Your task to perform on an android device: Search for "beats solo 3" on newegg.com, select the first entry, and add it to the cart. Image 0: 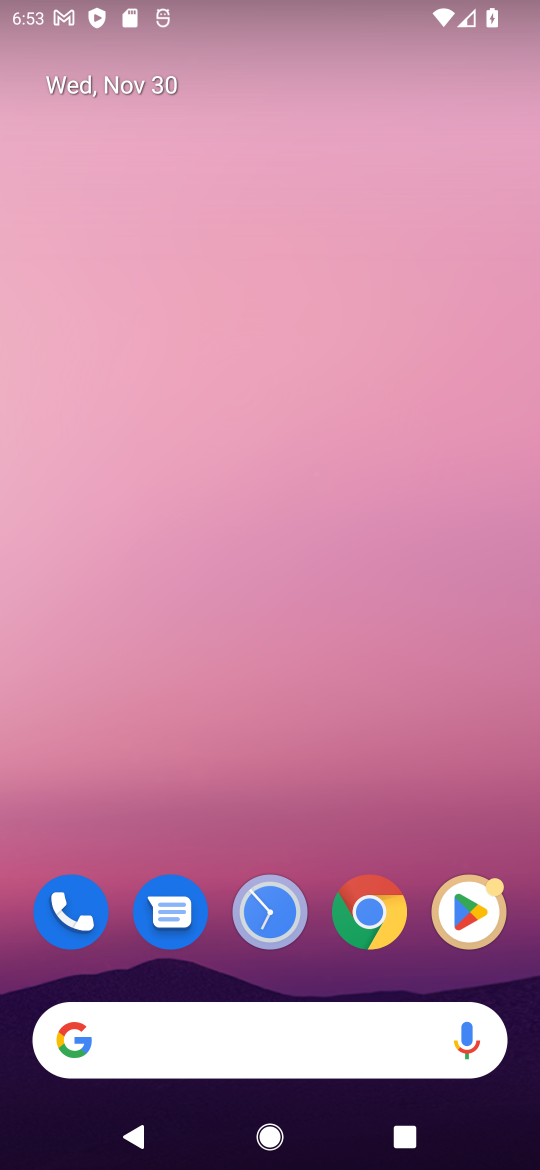
Step 0: click (281, 1021)
Your task to perform on an android device: Search for "beats solo 3" on newegg.com, select the first entry, and add it to the cart. Image 1: 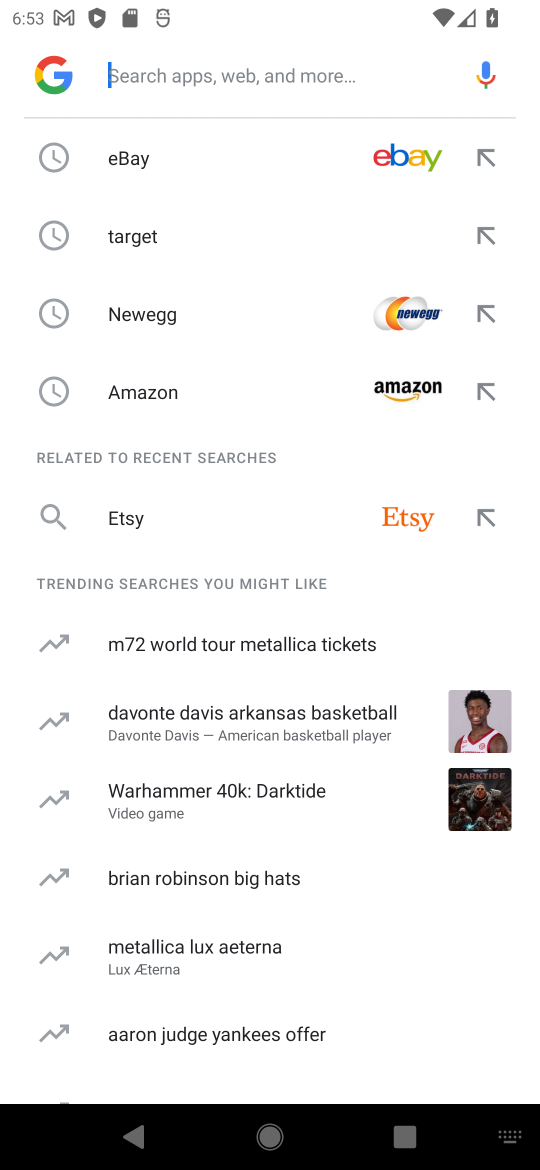
Step 1: click (212, 329)
Your task to perform on an android device: Search for "beats solo 3" on newegg.com, select the first entry, and add it to the cart. Image 2: 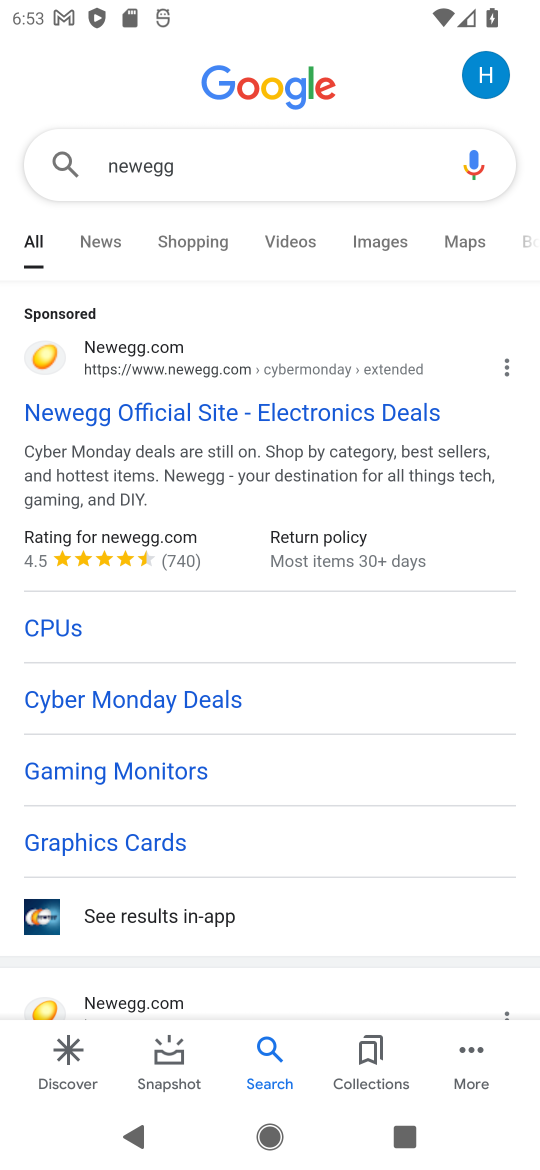
Step 2: click (135, 351)
Your task to perform on an android device: Search for "beats solo 3" on newegg.com, select the first entry, and add it to the cart. Image 3: 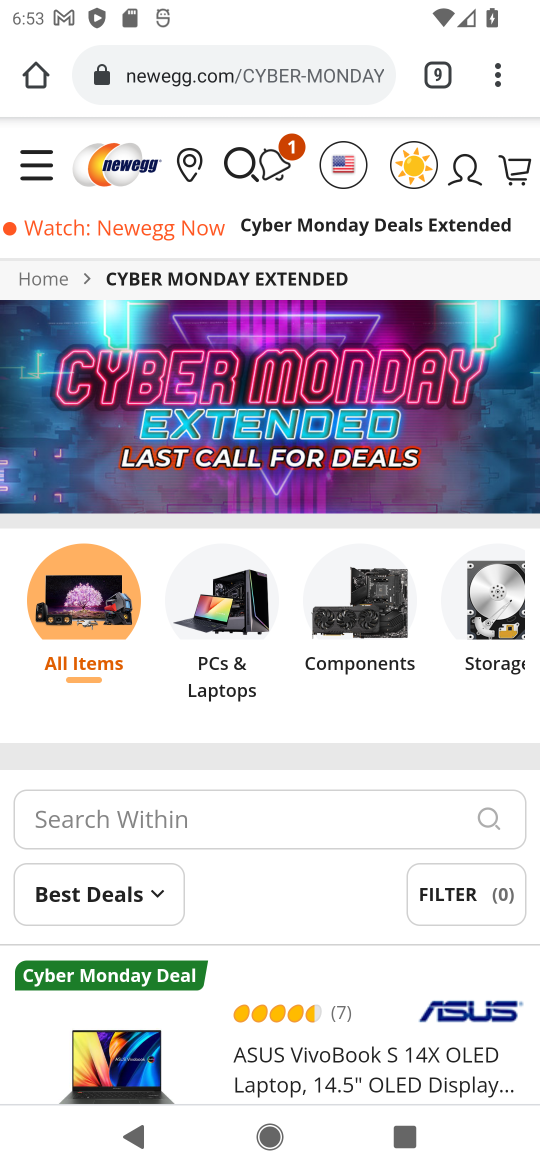
Step 3: click (236, 170)
Your task to perform on an android device: Search for "beats solo 3" on newegg.com, select the first entry, and add it to the cart. Image 4: 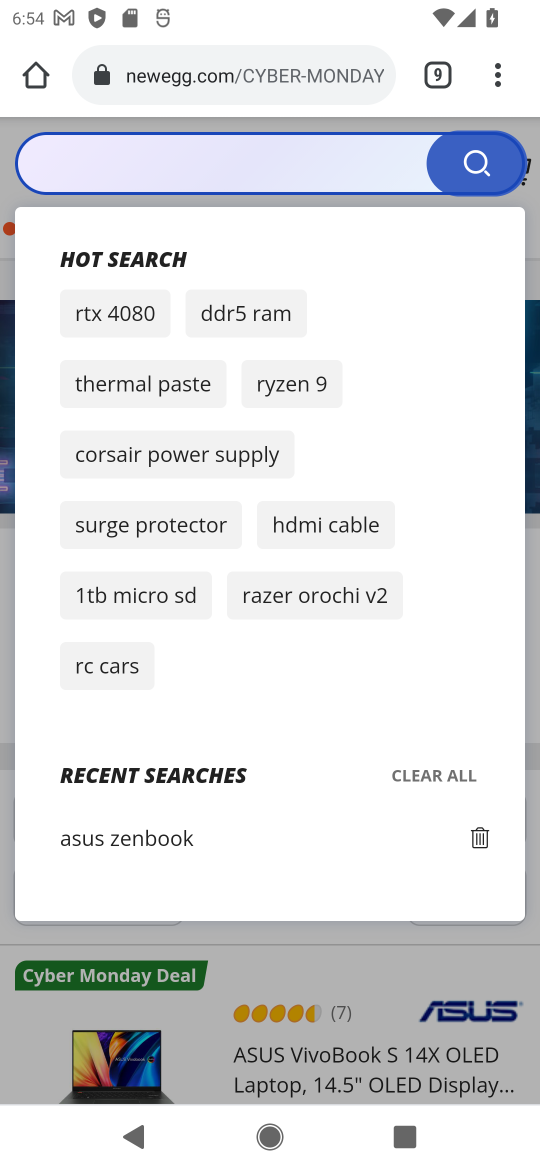
Step 4: type "beats solo 3"
Your task to perform on an android device: Search for "beats solo 3" on newegg.com, select the first entry, and add it to the cart. Image 5: 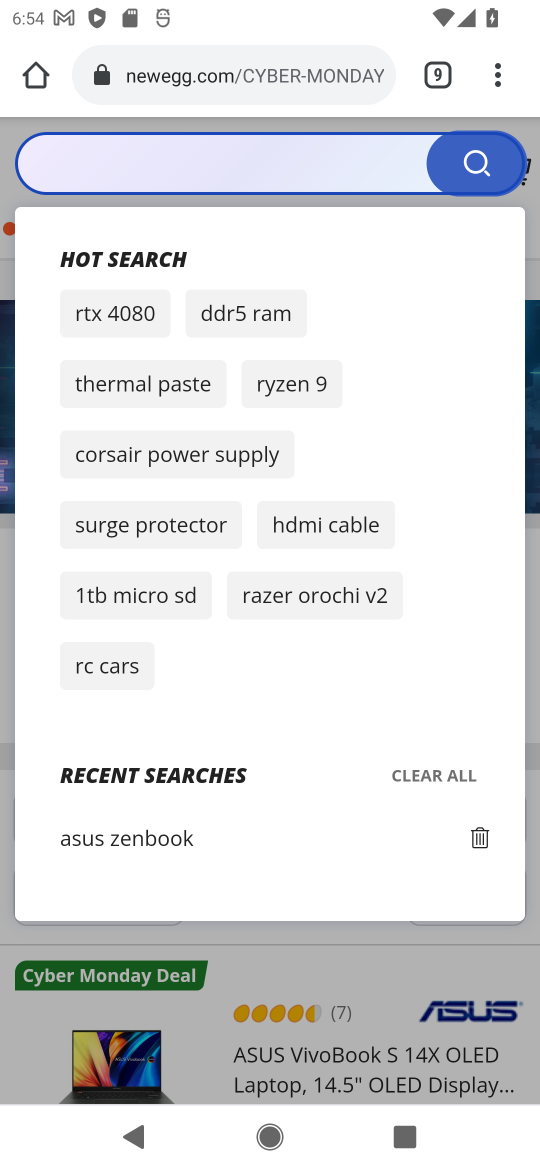
Step 5: type "beats solo 3"
Your task to perform on an android device: Search for "beats solo 3" on newegg.com, select the first entry, and add it to the cart. Image 6: 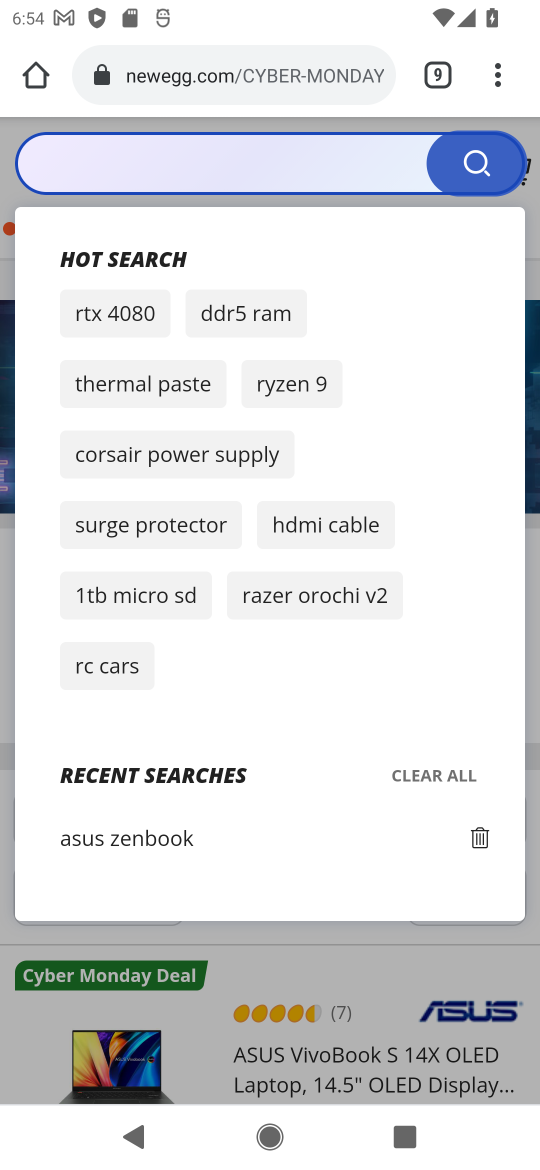
Step 6: click (330, 157)
Your task to perform on an android device: Search for "beats solo 3" on newegg.com, select the first entry, and add it to the cart. Image 7: 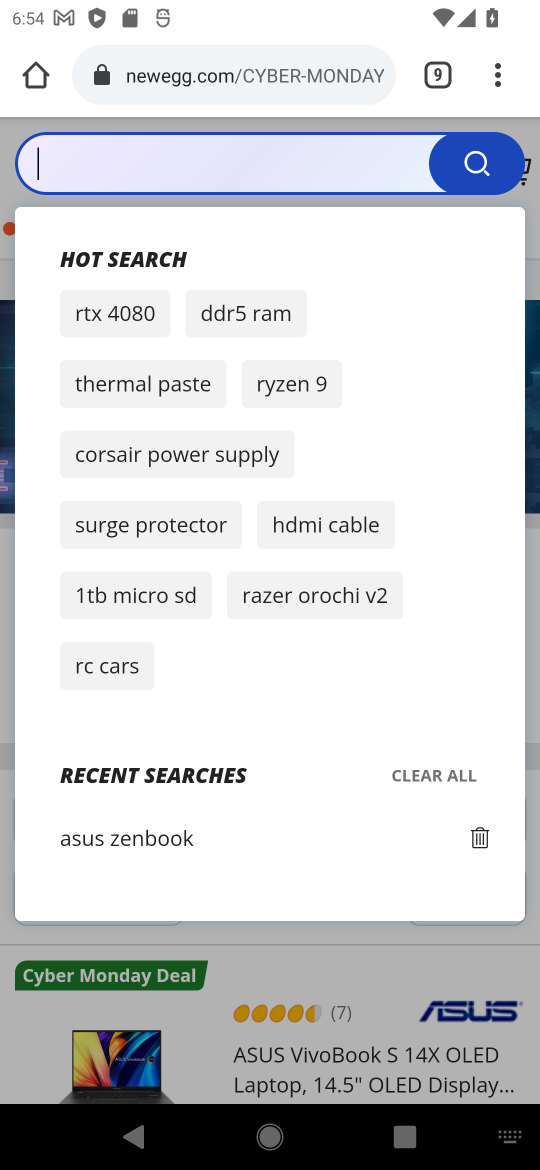
Step 7: type "beats solo 3"
Your task to perform on an android device: Search for "beats solo 3" on newegg.com, select the first entry, and add it to the cart. Image 8: 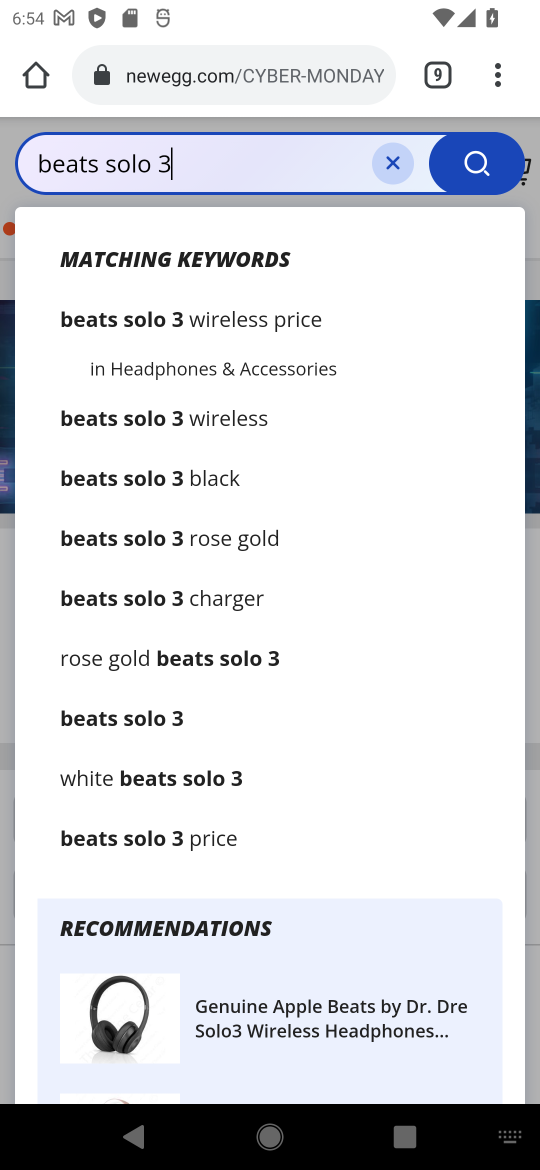
Step 8: click (479, 177)
Your task to perform on an android device: Search for "beats solo 3" on newegg.com, select the first entry, and add it to the cart. Image 9: 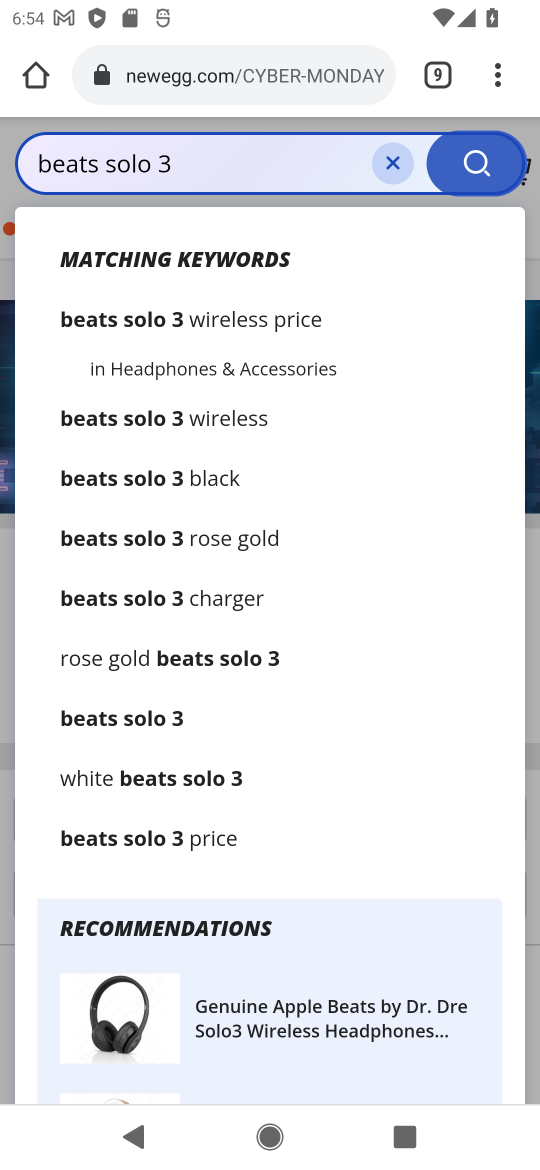
Step 9: click (184, 479)
Your task to perform on an android device: Search for "beats solo 3" on newegg.com, select the first entry, and add it to the cart. Image 10: 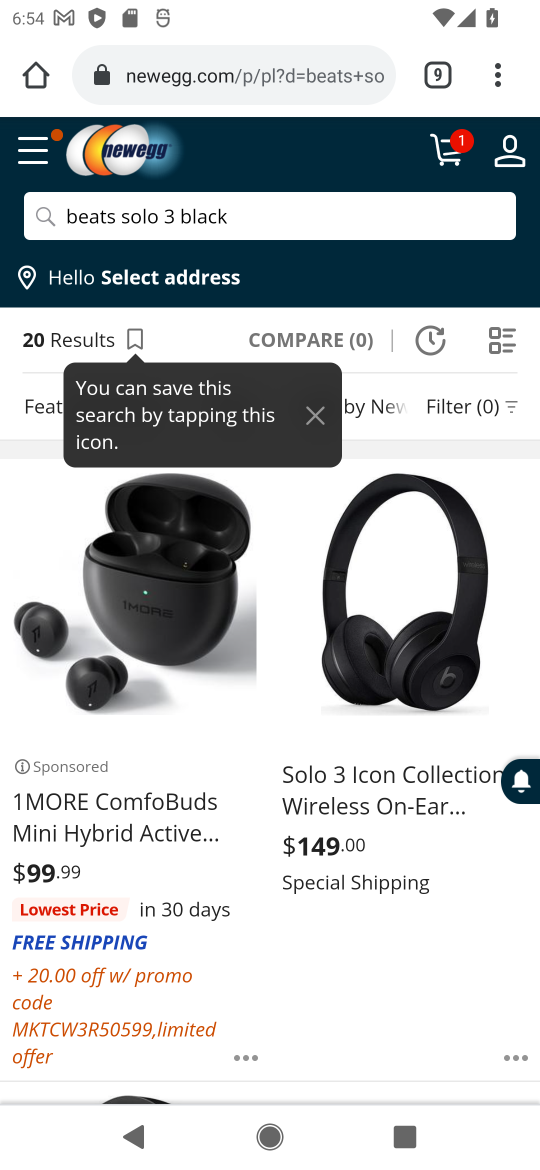
Step 10: click (105, 795)
Your task to perform on an android device: Search for "beats solo 3" on newegg.com, select the first entry, and add it to the cart. Image 11: 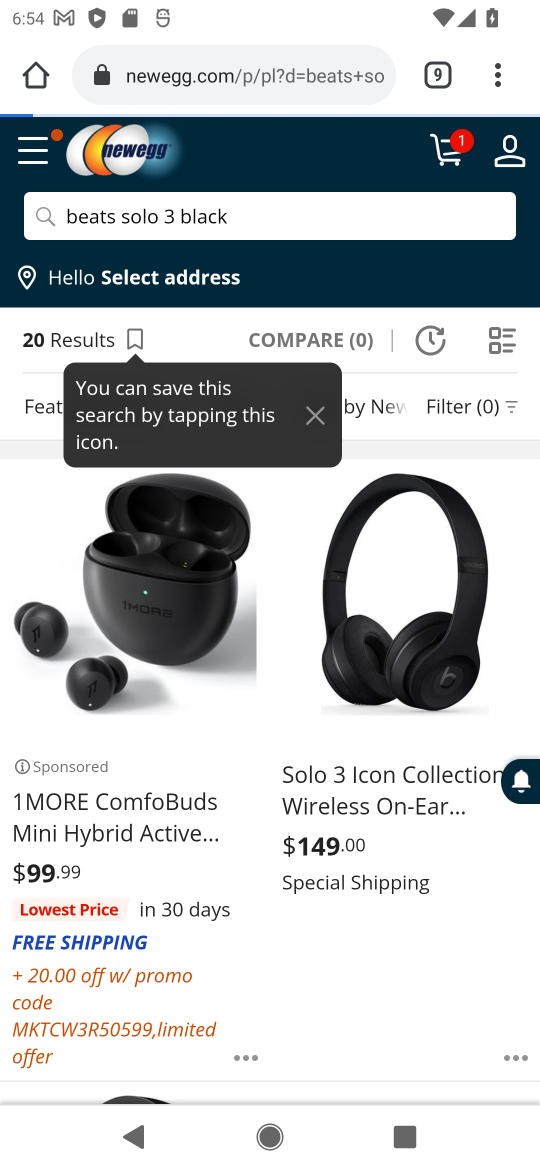
Step 11: click (85, 696)
Your task to perform on an android device: Search for "beats solo 3" on newegg.com, select the first entry, and add it to the cart. Image 12: 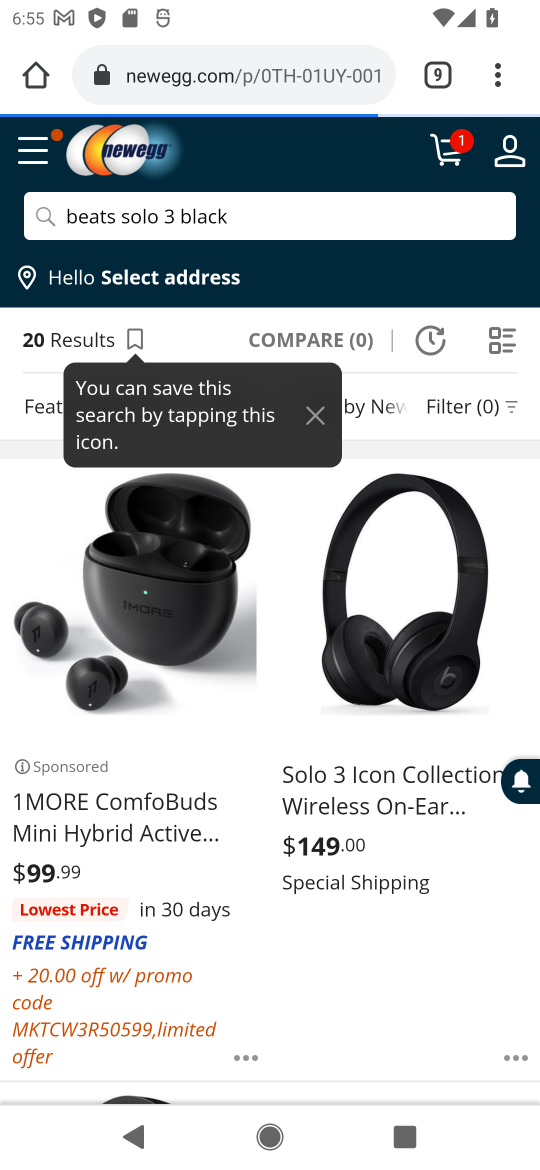
Step 12: click (126, 839)
Your task to perform on an android device: Search for "beats solo 3" on newegg.com, select the first entry, and add it to the cart. Image 13: 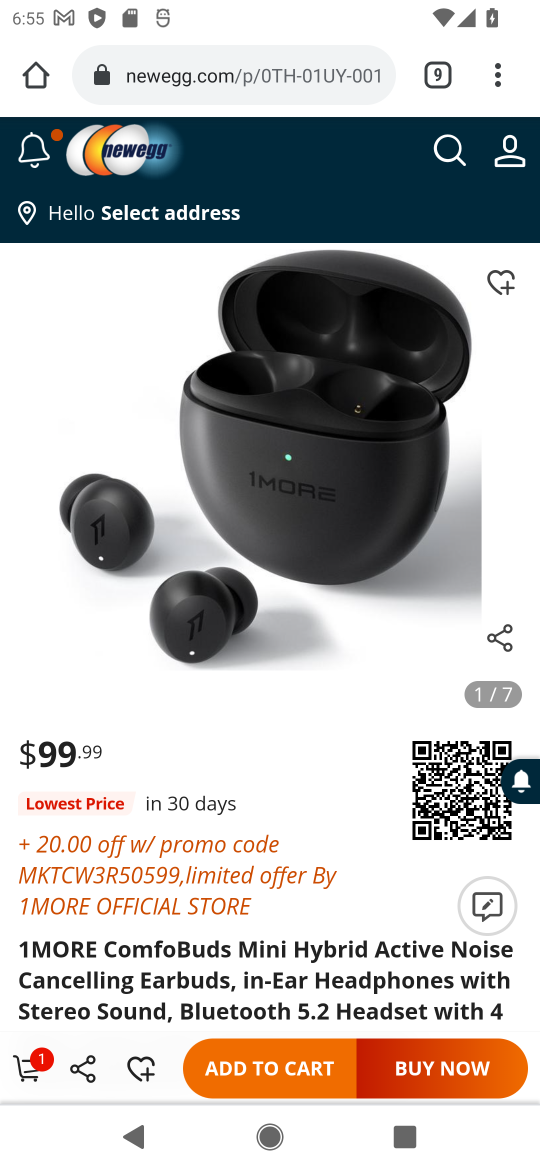
Step 13: click (216, 1069)
Your task to perform on an android device: Search for "beats solo 3" on newegg.com, select the first entry, and add it to the cart. Image 14: 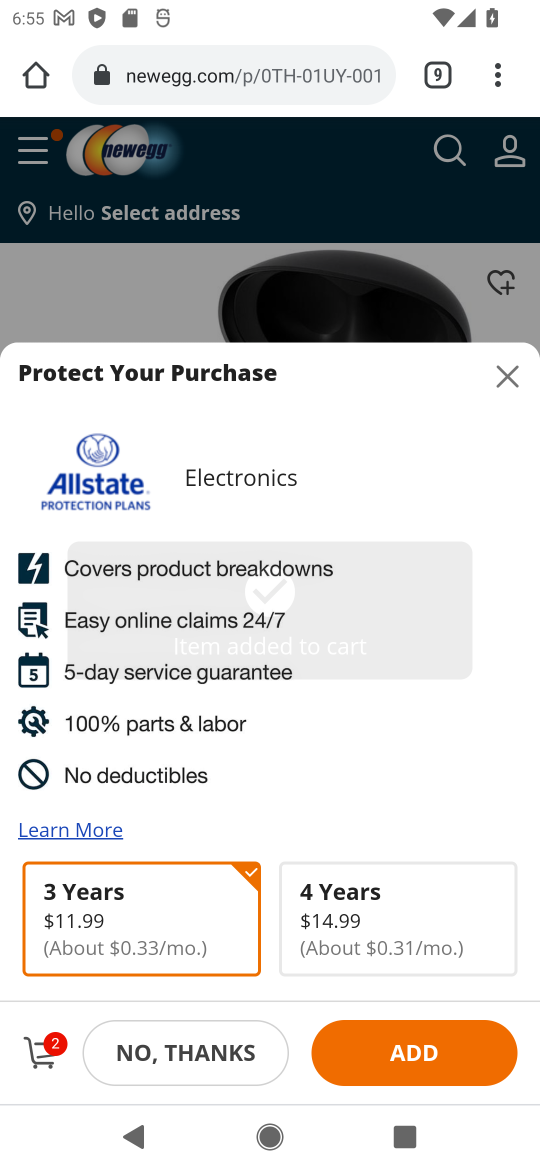
Step 14: task complete